Your task to perform on an android device: check google app version Image 0: 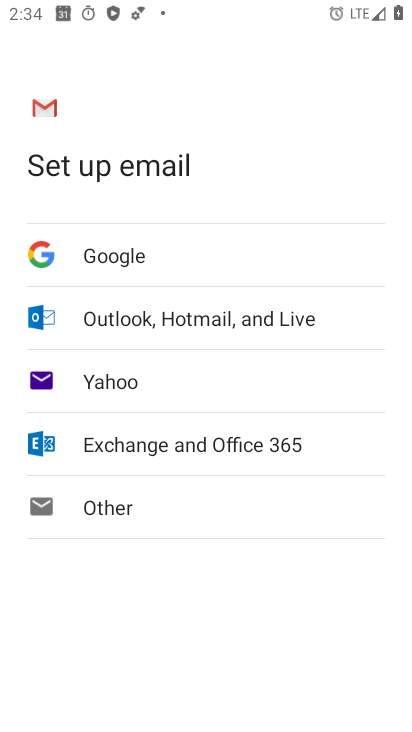
Step 0: press home button
Your task to perform on an android device: check google app version Image 1: 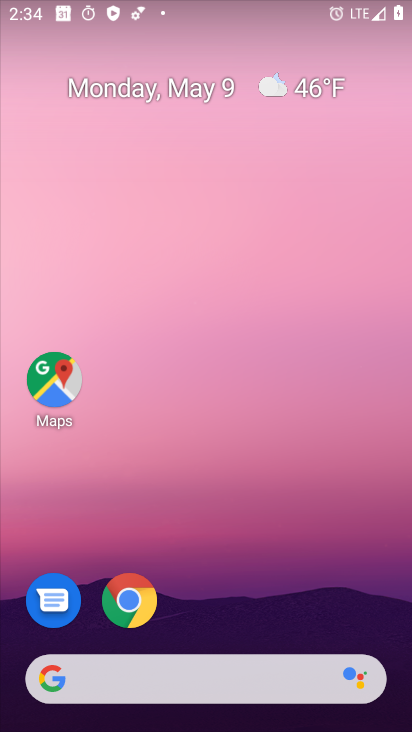
Step 1: drag from (198, 684) to (167, 198)
Your task to perform on an android device: check google app version Image 2: 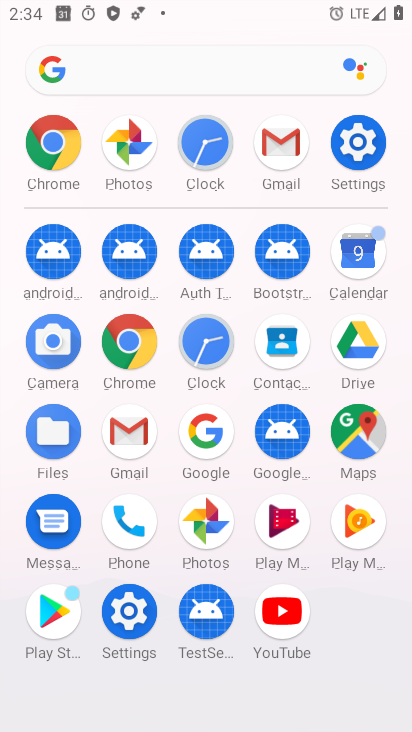
Step 2: click (205, 432)
Your task to perform on an android device: check google app version Image 3: 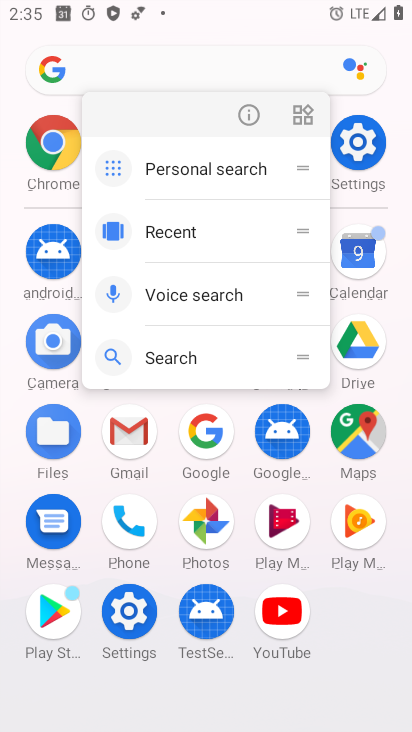
Step 3: click (248, 121)
Your task to perform on an android device: check google app version Image 4: 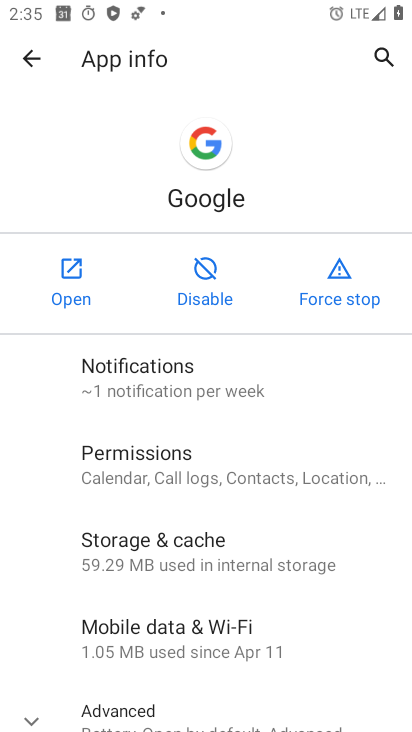
Step 4: drag from (147, 523) to (134, 9)
Your task to perform on an android device: check google app version Image 5: 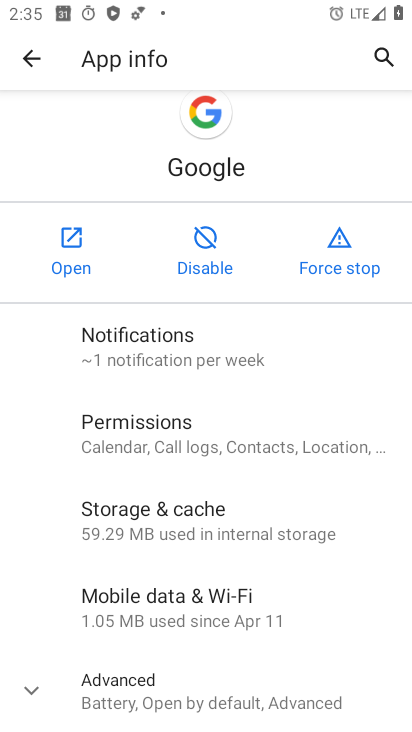
Step 5: drag from (184, 707) to (193, 185)
Your task to perform on an android device: check google app version Image 6: 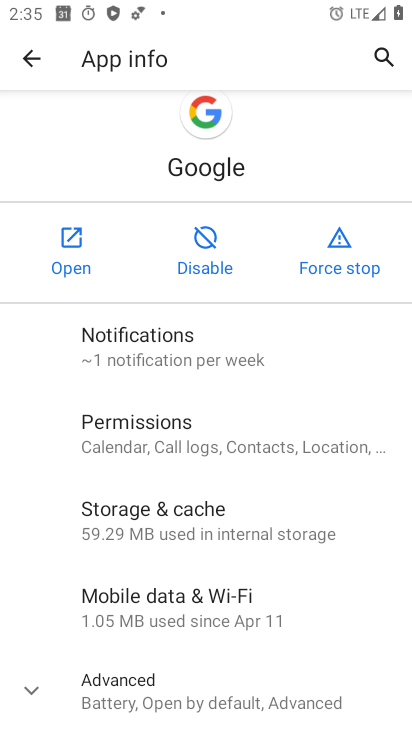
Step 6: click (135, 694)
Your task to perform on an android device: check google app version Image 7: 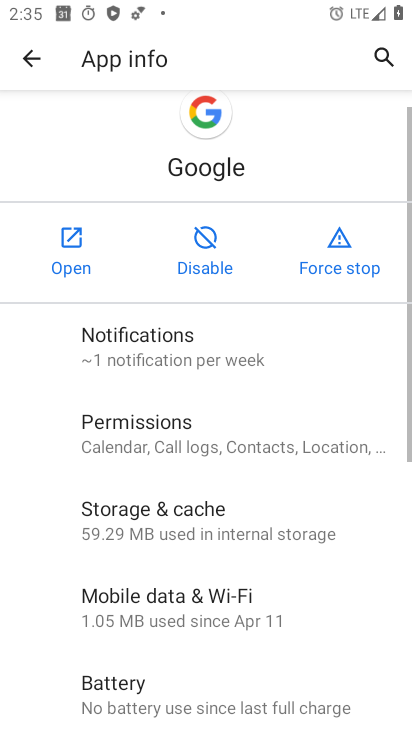
Step 7: task complete